Your task to perform on an android device: turn vacation reply on in the gmail app Image 0: 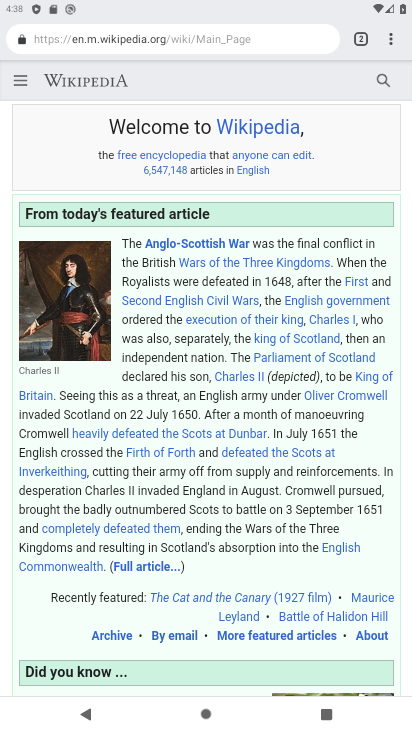
Step 0: press home button
Your task to perform on an android device: turn vacation reply on in the gmail app Image 1: 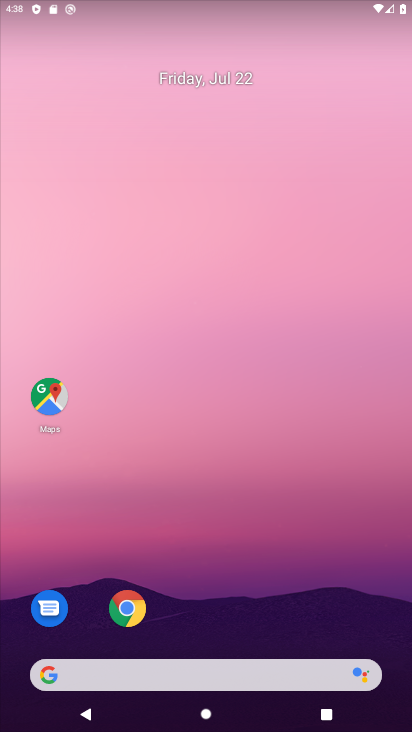
Step 1: drag from (263, 587) to (300, 19)
Your task to perform on an android device: turn vacation reply on in the gmail app Image 2: 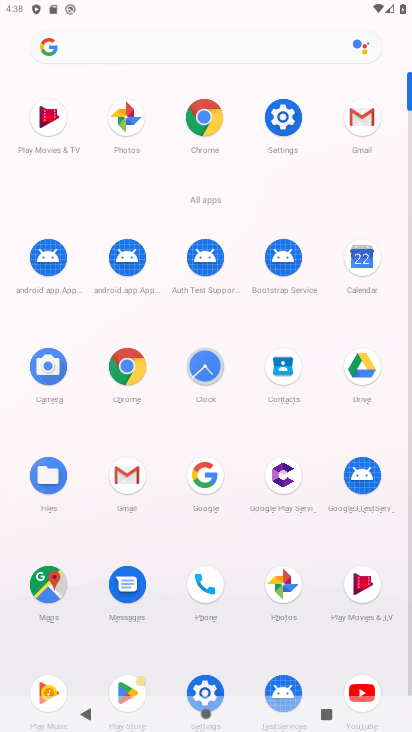
Step 2: click (366, 115)
Your task to perform on an android device: turn vacation reply on in the gmail app Image 3: 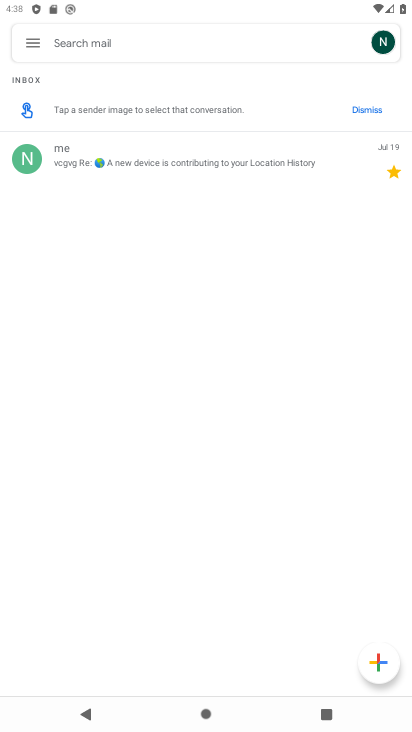
Step 3: click (29, 37)
Your task to perform on an android device: turn vacation reply on in the gmail app Image 4: 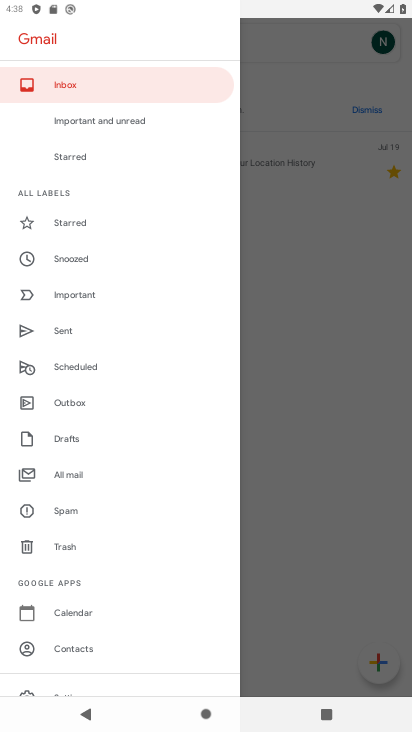
Step 4: click (68, 275)
Your task to perform on an android device: turn vacation reply on in the gmail app Image 5: 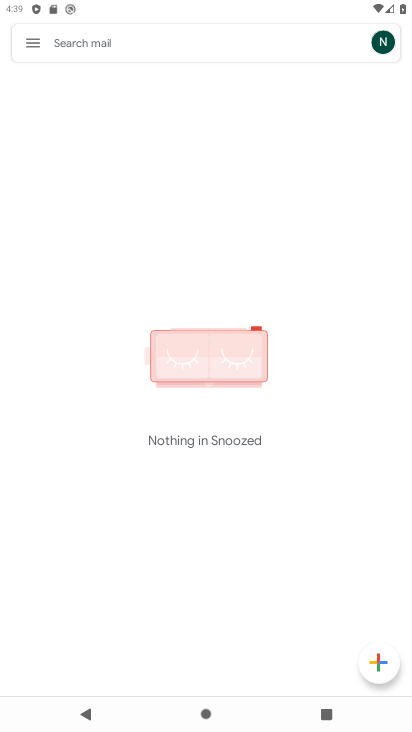
Step 5: click (39, 51)
Your task to perform on an android device: turn vacation reply on in the gmail app Image 6: 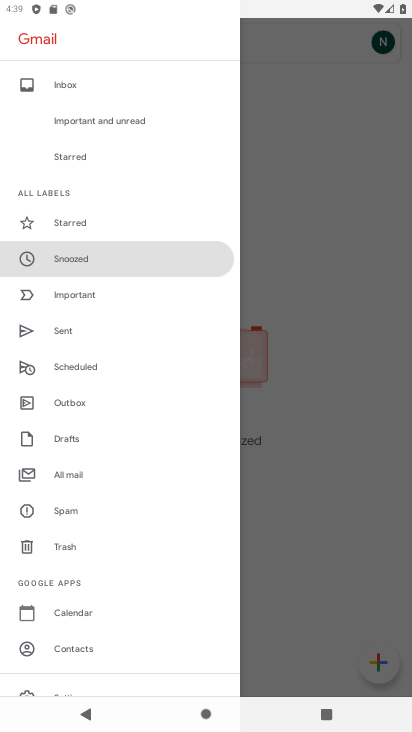
Step 6: drag from (90, 593) to (149, 193)
Your task to perform on an android device: turn vacation reply on in the gmail app Image 7: 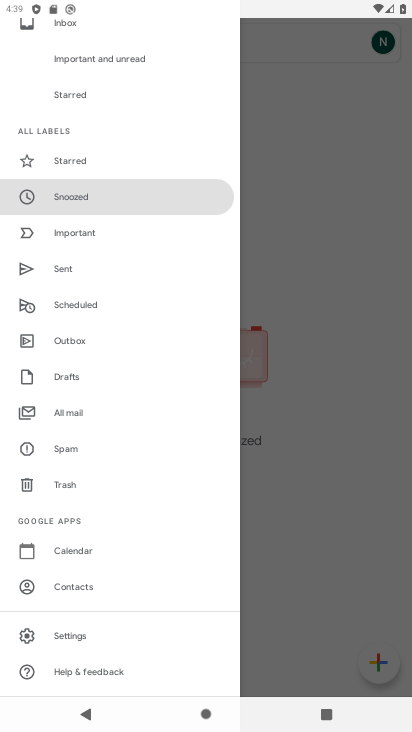
Step 7: click (55, 637)
Your task to perform on an android device: turn vacation reply on in the gmail app Image 8: 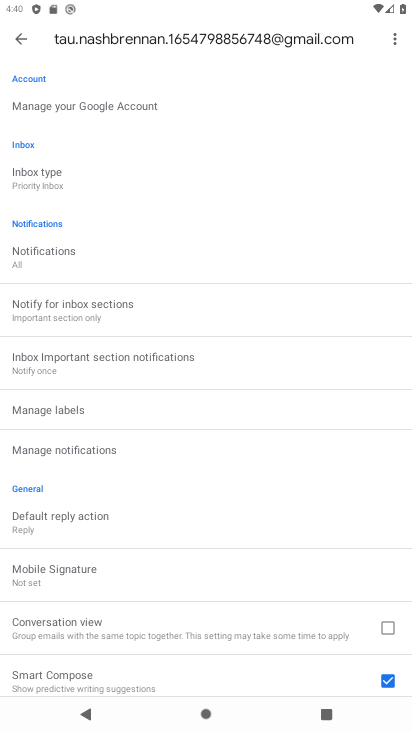
Step 8: click (277, 83)
Your task to perform on an android device: turn vacation reply on in the gmail app Image 9: 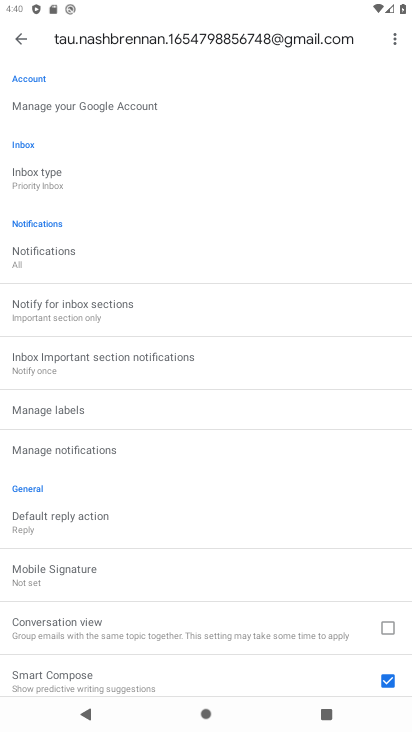
Step 9: drag from (147, 644) to (158, 75)
Your task to perform on an android device: turn vacation reply on in the gmail app Image 10: 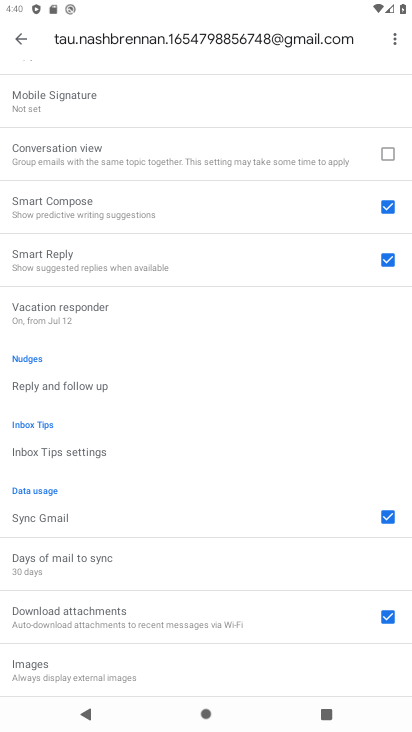
Step 10: drag from (174, 546) to (182, 267)
Your task to perform on an android device: turn vacation reply on in the gmail app Image 11: 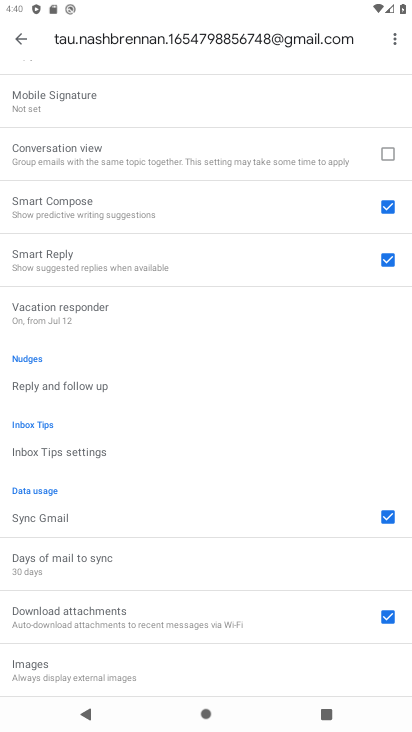
Step 11: click (145, 297)
Your task to perform on an android device: turn vacation reply on in the gmail app Image 12: 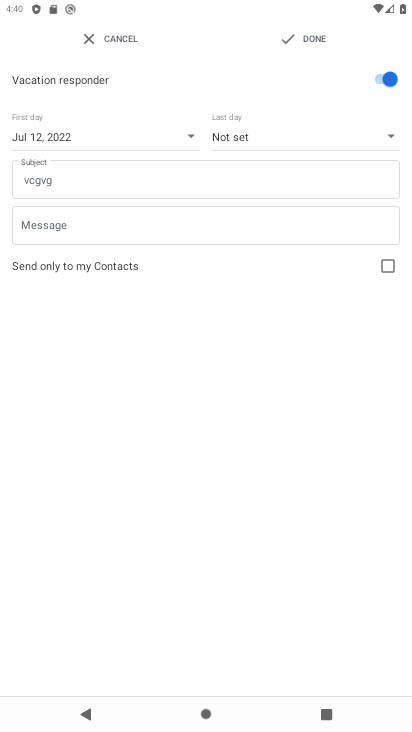
Step 12: click (314, 38)
Your task to perform on an android device: turn vacation reply on in the gmail app Image 13: 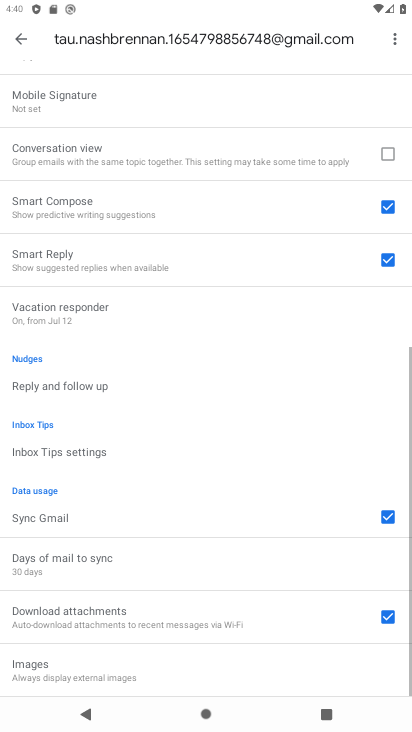
Step 13: task complete